Your task to perform on an android device: open app "YouTube Kids" (install if not already installed) and enter user name: "atmospheric@gmail.com" and password: "raze" Image 0: 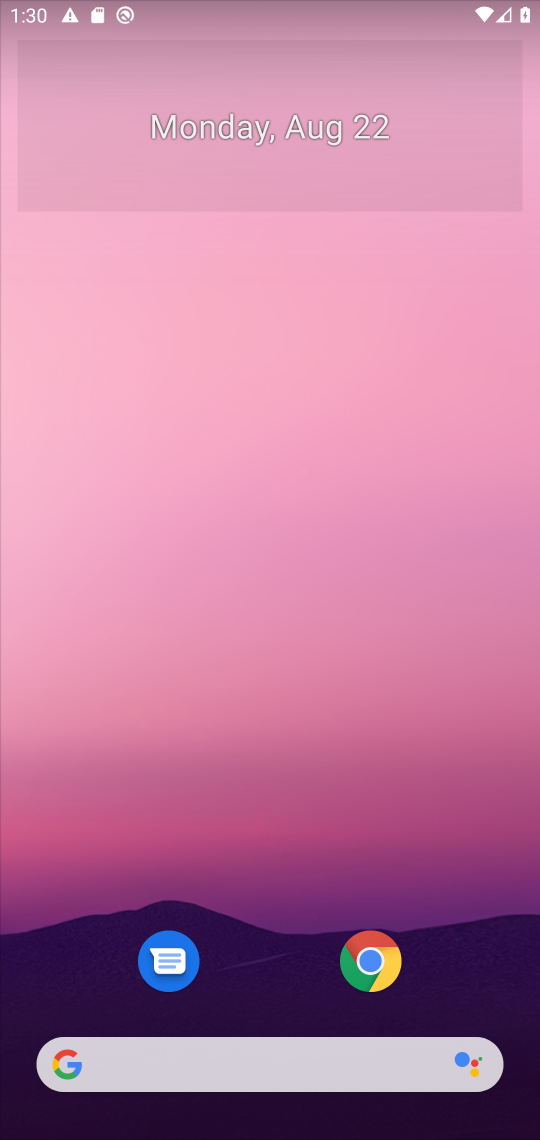
Step 0: press home button
Your task to perform on an android device: open app "YouTube Kids" (install if not already installed) and enter user name: "atmospheric@gmail.com" and password: "raze" Image 1: 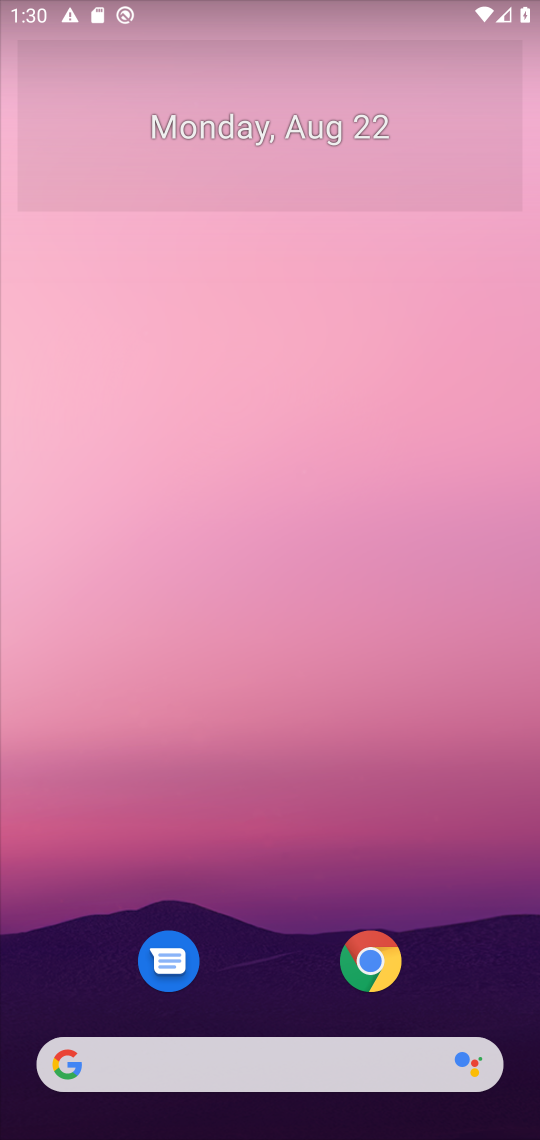
Step 1: drag from (472, 994) to (509, 163)
Your task to perform on an android device: open app "YouTube Kids" (install if not already installed) and enter user name: "atmospheric@gmail.com" and password: "raze" Image 2: 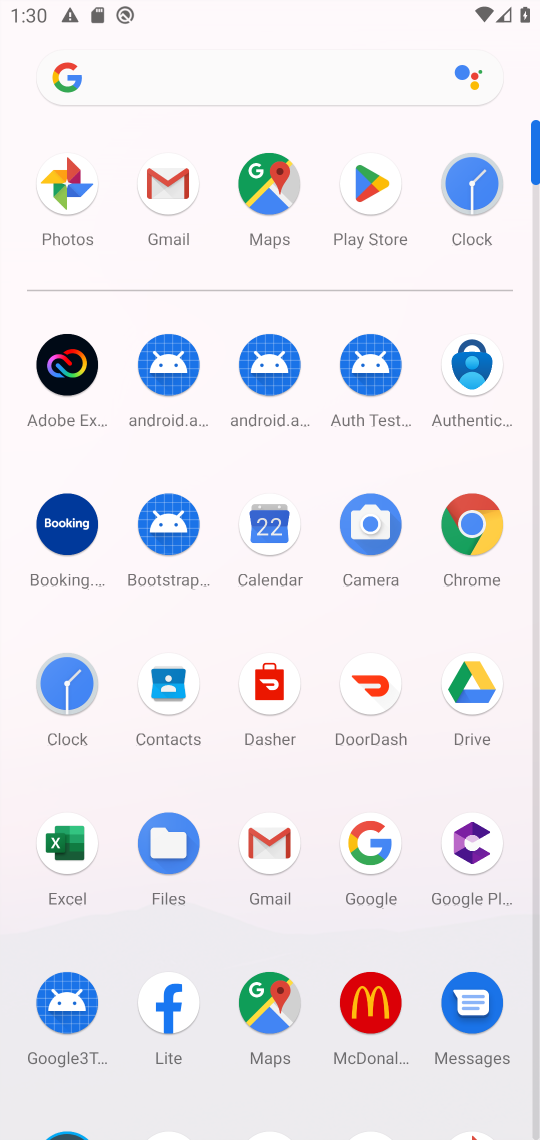
Step 2: click (367, 187)
Your task to perform on an android device: open app "YouTube Kids" (install if not already installed) and enter user name: "atmospheric@gmail.com" and password: "raze" Image 3: 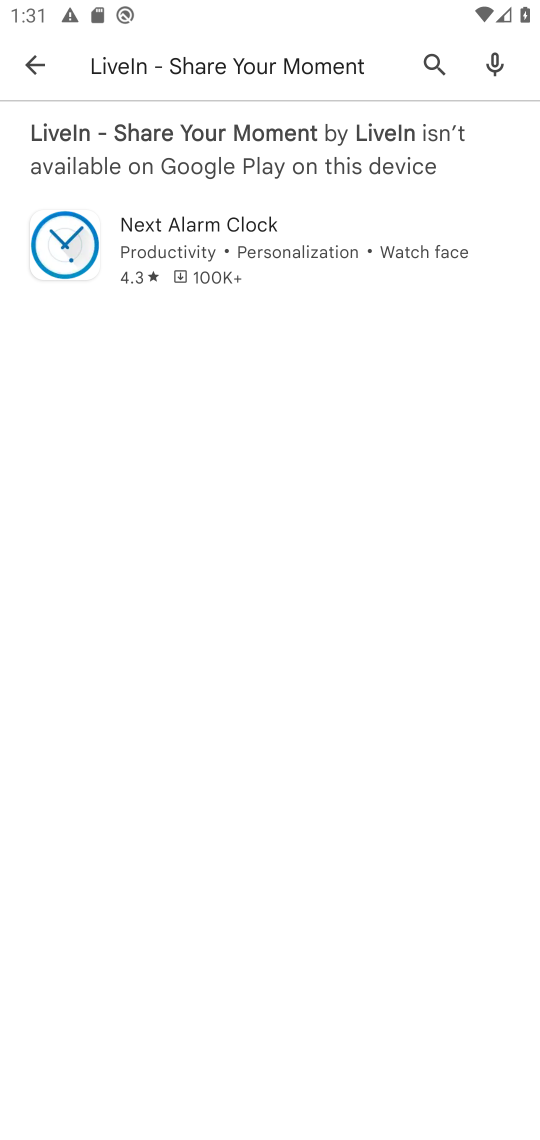
Step 3: press back button
Your task to perform on an android device: open app "YouTube Kids" (install if not already installed) and enter user name: "atmospheric@gmail.com" and password: "raze" Image 4: 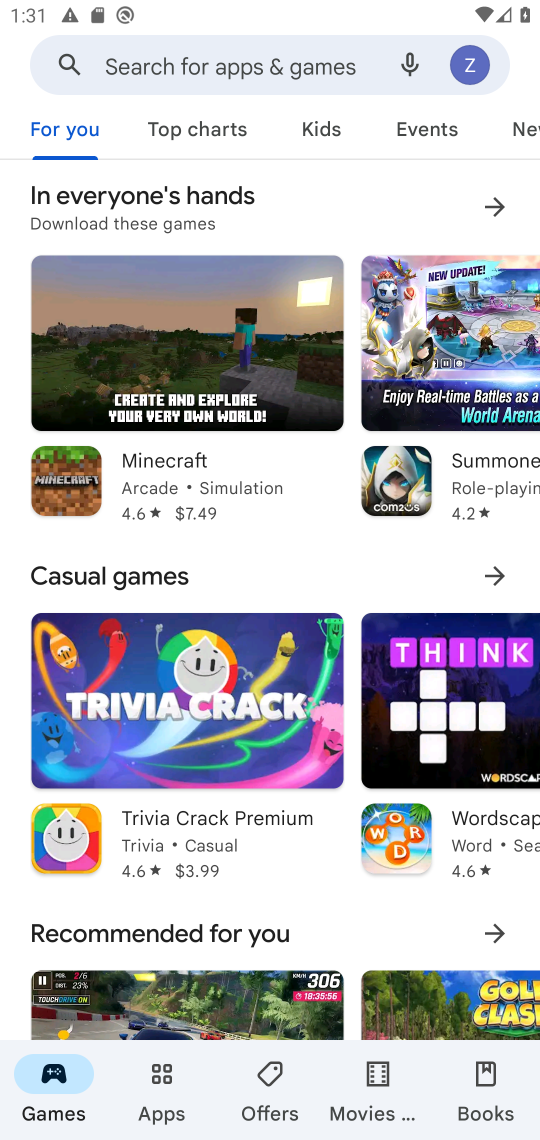
Step 4: click (204, 74)
Your task to perform on an android device: open app "YouTube Kids" (install if not already installed) and enter user name: "atmospheric@gmail.com" and password: "raze" Image 5: 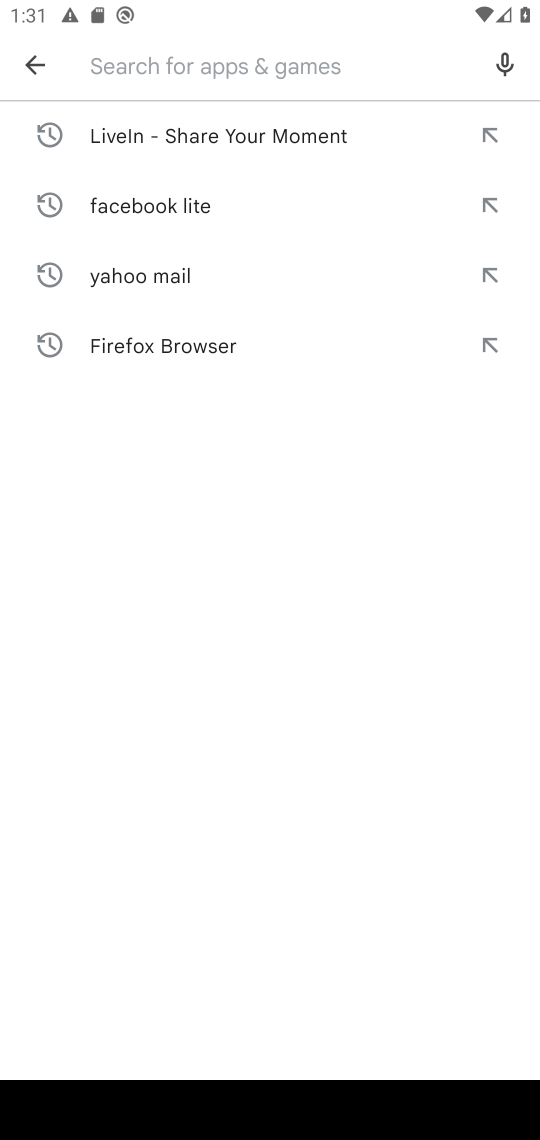
Step 5: type "YouTube Kids"
Your task to perform on an android device: open app "YouTube Kids" (install if not already installed) and enter user name: "atmospheric@gmail.com" and password: "raze" Image 6: 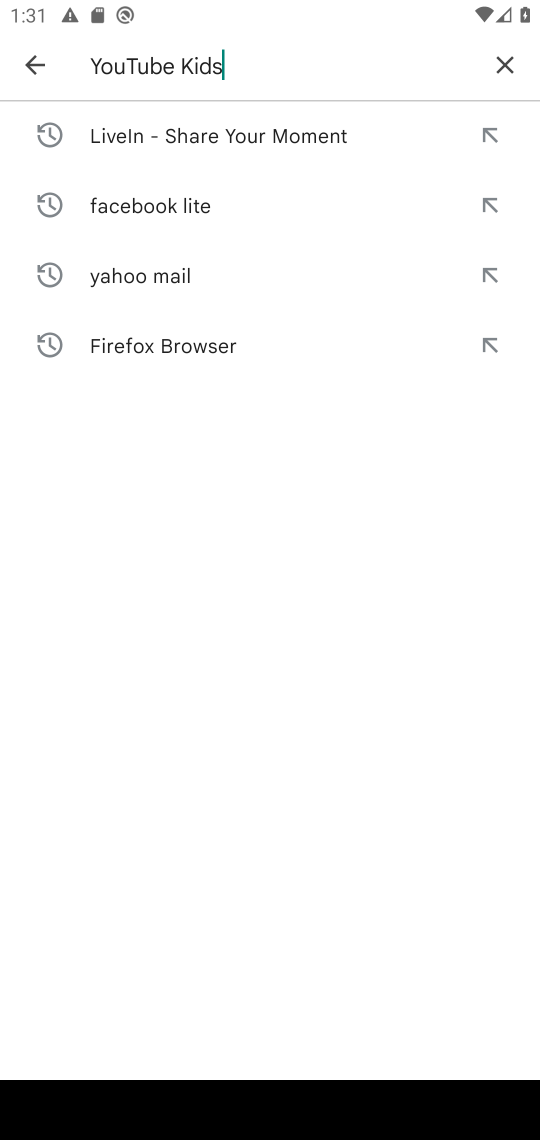
Step 6: press enter
Your task to perform on an android device: open app "YouTube Kids" (install if not already installed) and enter user name: "atmospheric@gmail.com" and password: "raze" Image 7: 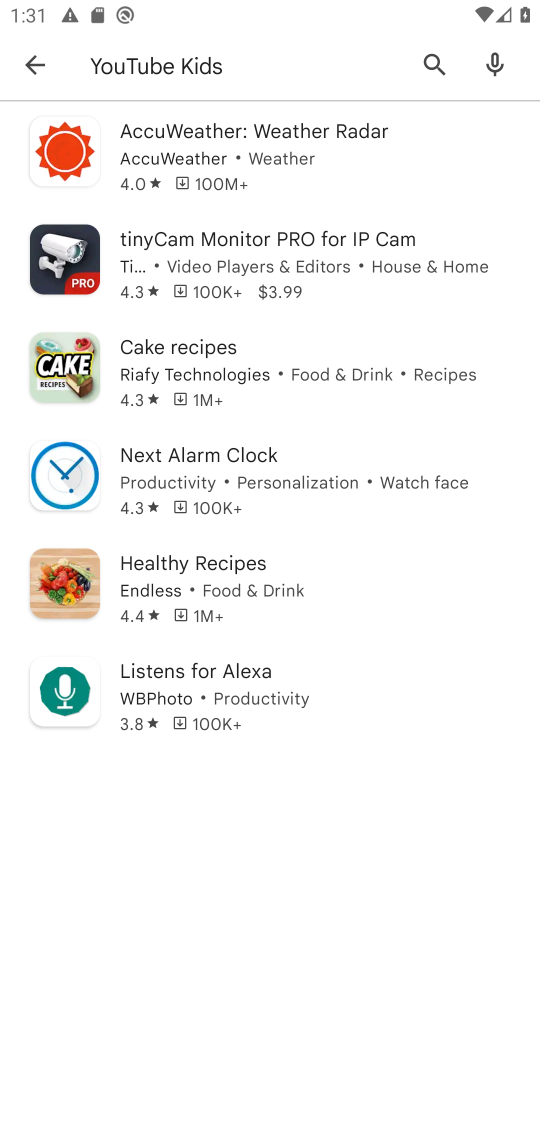
Step 7: task complete